Your task to perform on an android device: Go to privacy settings Image 0: 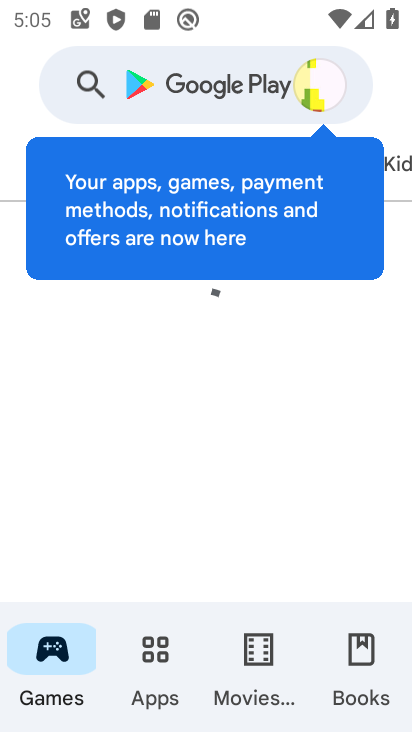
Step 0: press home button
Your task to perform on an android device: Go to privacy settings Image 1: 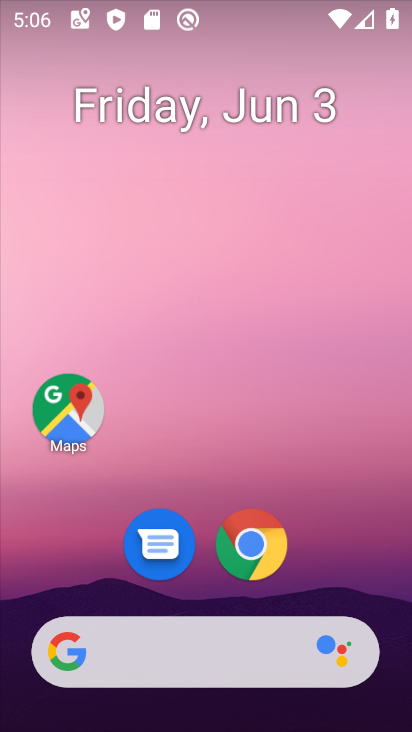
Step 1: drag from (345, 579) to (292, 131)
Your task to perform on an android device: Go to privacy settings Image 2: 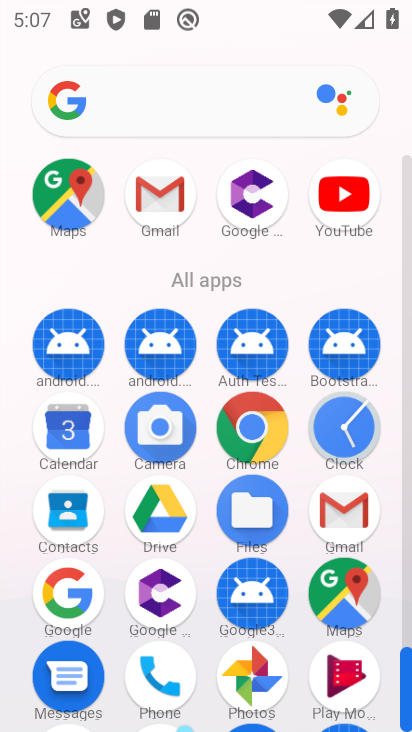
Step 2: drag from (207, 602) to (191, 198)
Your task to perform on an android device: Go to privacy settings Image 3: 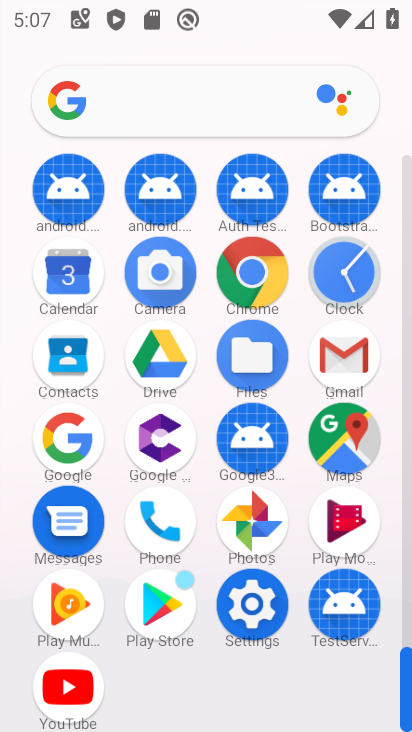
Step 3: click (257, 599)
Your task to perform on an android device: Go to privacy settings Image 4: 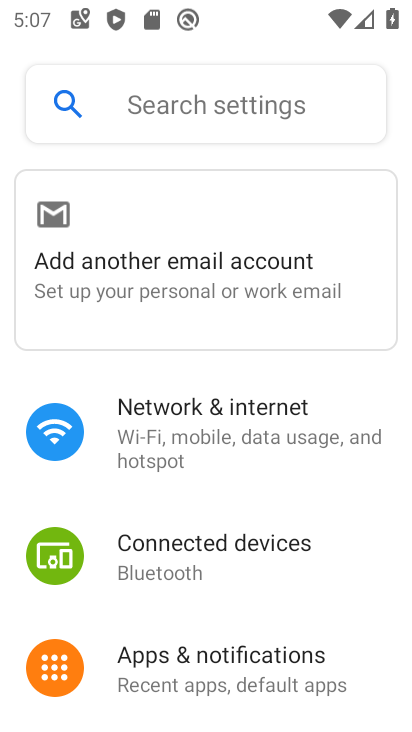
Step 4: drag from (327, 600) to (271, 243)
Your task to perform on an android device: Go to privacy settings Image 5: 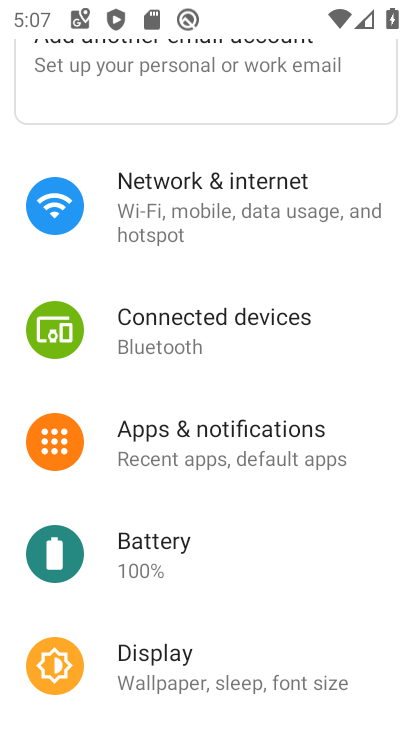
Step 5: drag from (262, 667) to (254, 394)
Your task to perform on an android device: Go to privacy settings Image 6: 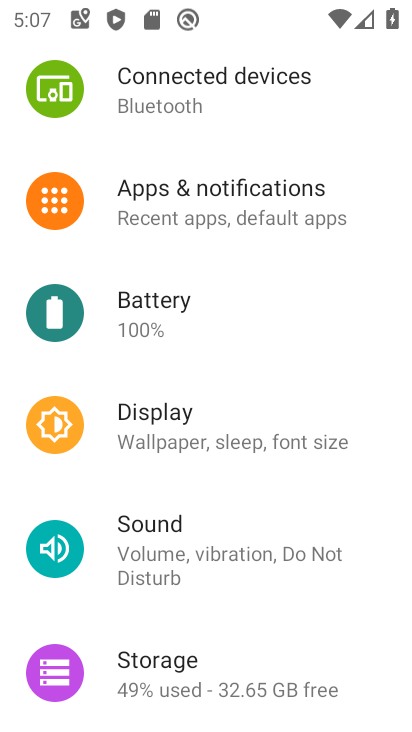
Step 6: drag from (362, 645) to (331, 252)
Your task to perform on an android device: Go to privacy settings Image 7: 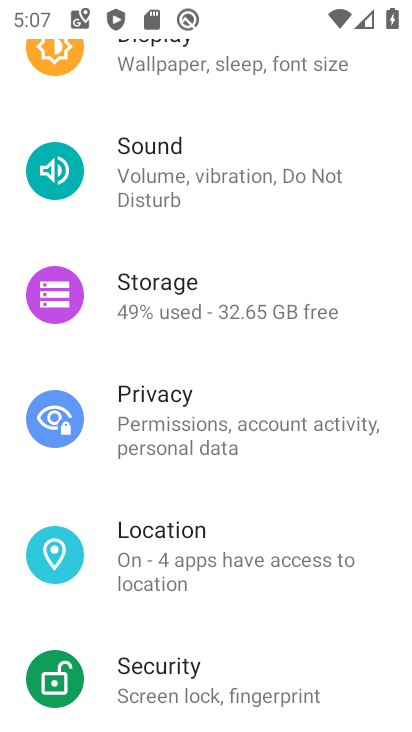
Step 7: click (156, 416)
Your task to perform on an android device: Go to privacy settings Image 8: 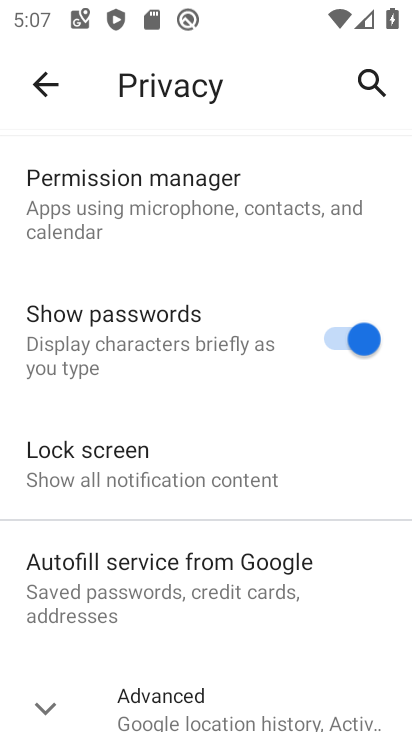
Step 8: task complete